Your task to perform on an android device: Go to notification settings Image 0: 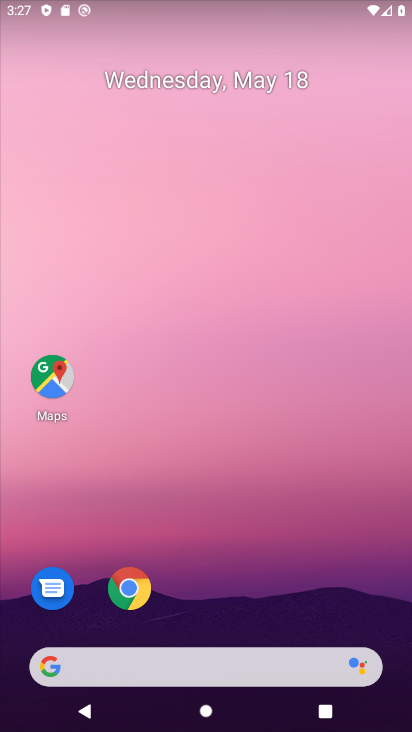
Step 0: drag from (254, 604) to (258, 156)
Your task to perform on an android device: Go to notification settings Image 1: 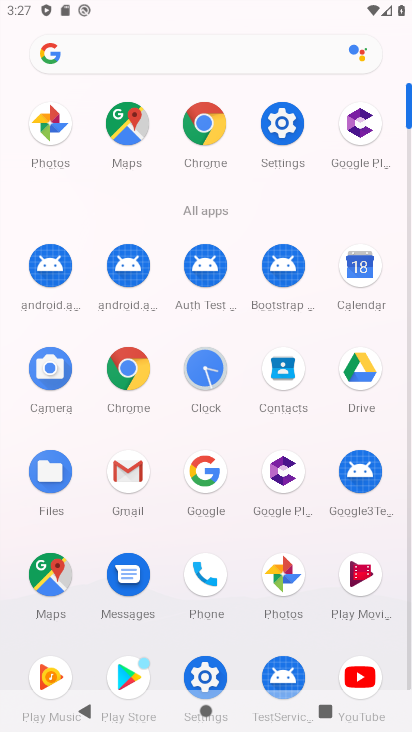
Step 1: click (283, 164)
Your task to perform on an android device: Go to notification settings Image 2: 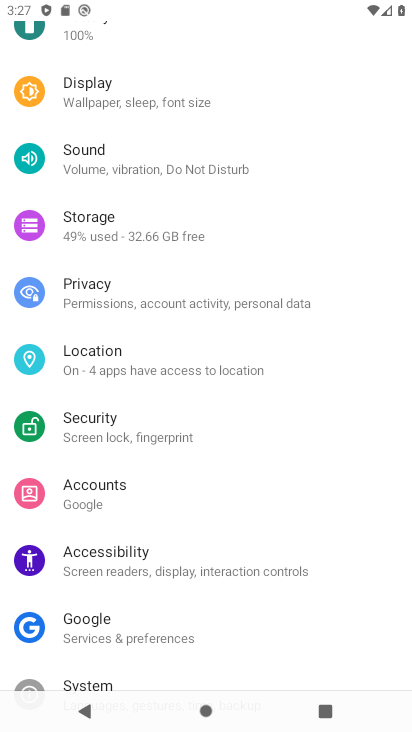
Step 2: drag from (114, 245) to (117, 495)
Your task to perform on an android device: Go to notification settings Image 3: 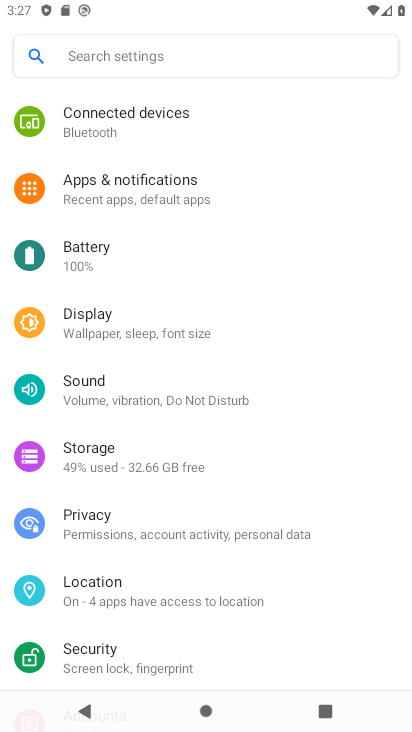
Step 3: click (117, 192)
Your task to perform on an android device: Go to notification settings Image 4: 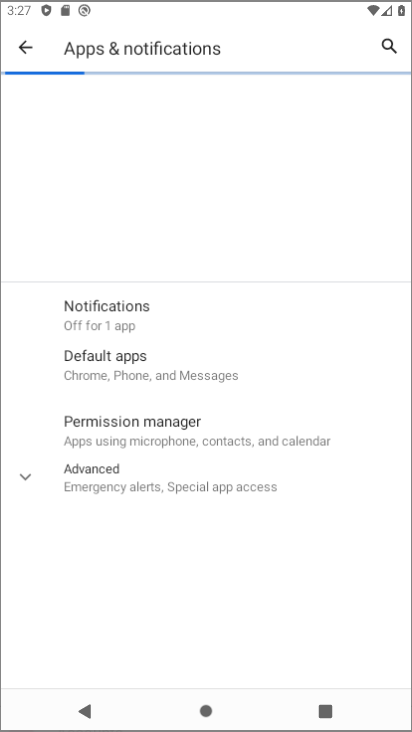
Step 4: task complete